Your task to perform on an android device: Open calendar and show me the first week of next month Image 0: 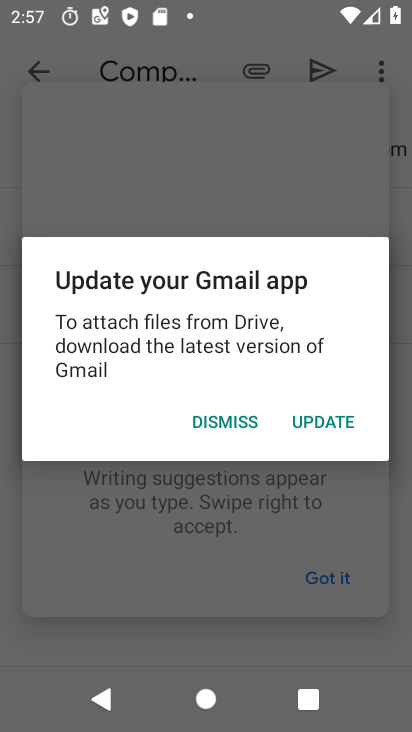
Step 0: press home button
Your task to perform on an android device: Open calendar and show me the first week of next month Image 1: 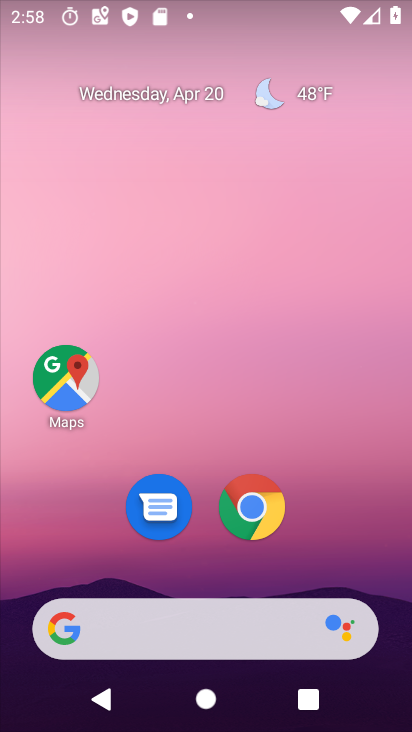
Step 1: drag from (175, 543) to (195, 213)
Your task to perform on an android device: Open calendar and show me the first week of next month Image 2: 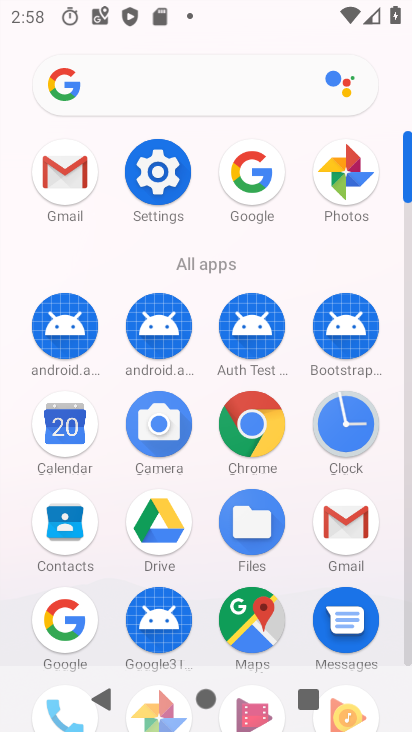
Step 2: click (79, 436)
Your task to perform on an android device: Open calendar and show me the first week of next month Image 3: 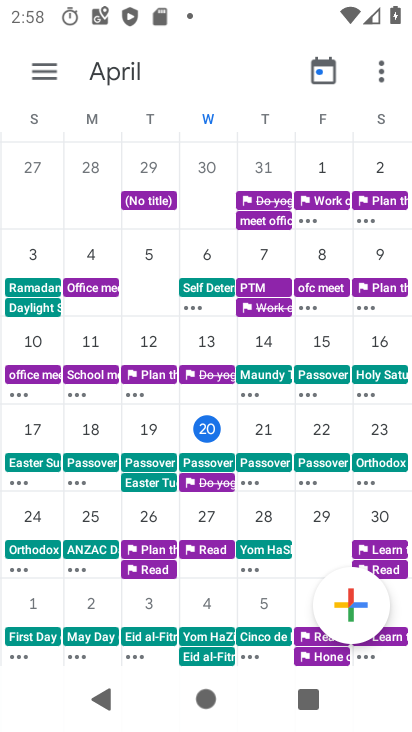
Step 3: click (41, 73)
Your task to perform on an android device: Open calendar and show me the first week of next month Image 4: 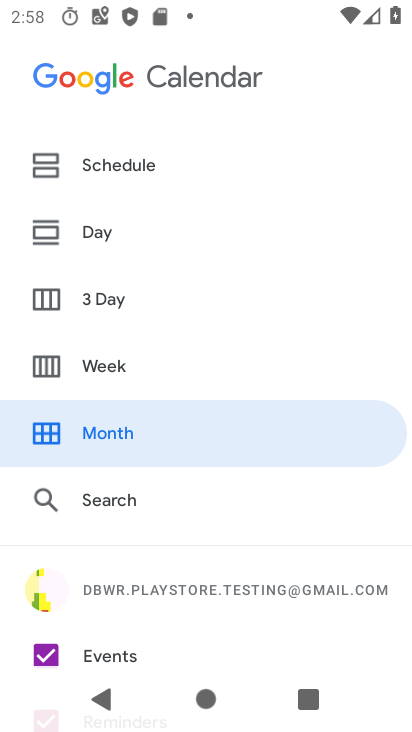
Step 4: click (138, 431)
Your task to perform on an android device: Open calendar and show me the first week of next month Image 5: 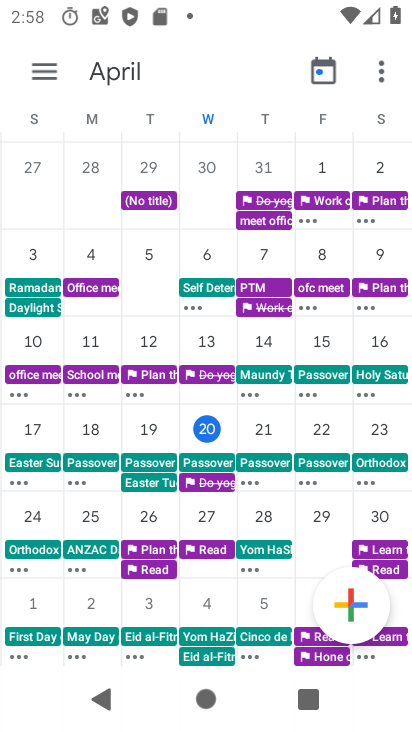
Step 5: task complete